Your task to perform on an android device: install app "Etsy: Buy & Sell Unique Items" Image 0: 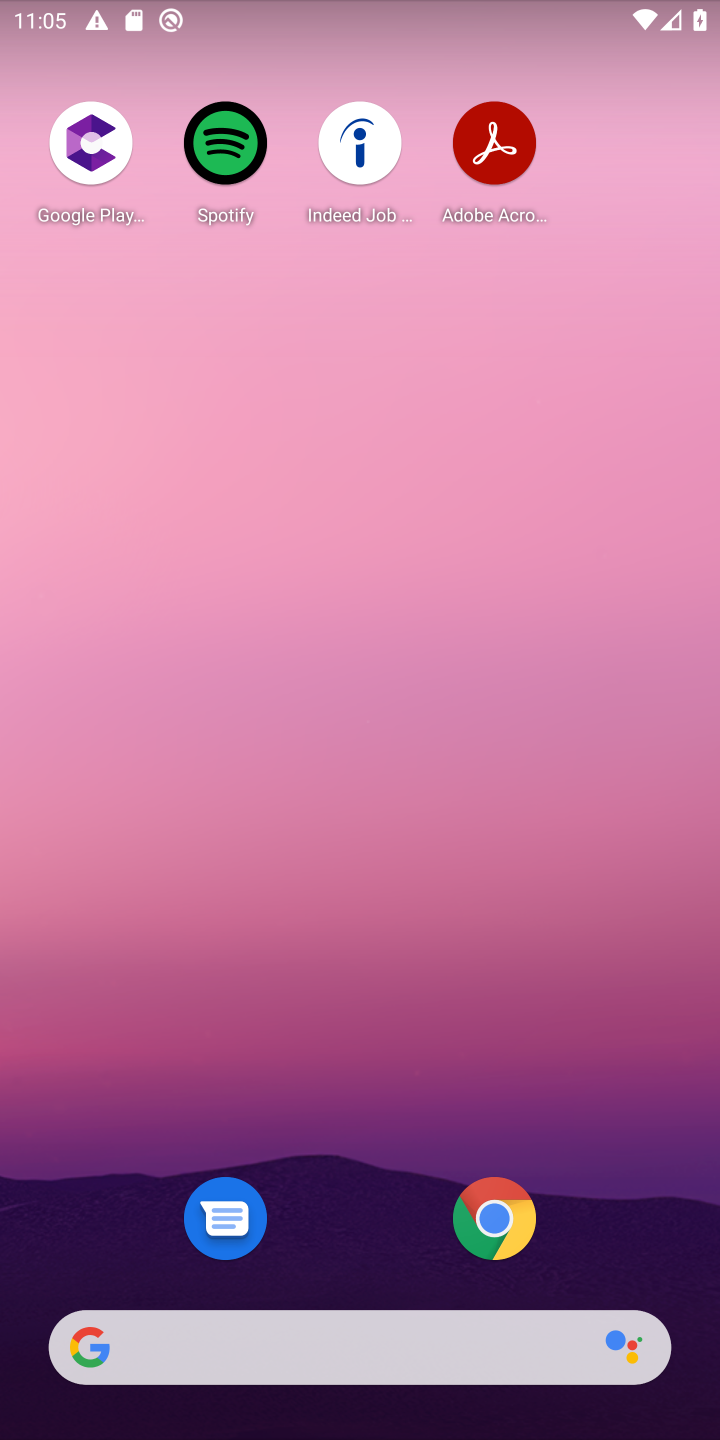
Step 0: drag from (383, 579) to (383, 451)
Your task to perform on an android device: install app "Etsy: Buy & Sell Unique Items" Image 1: 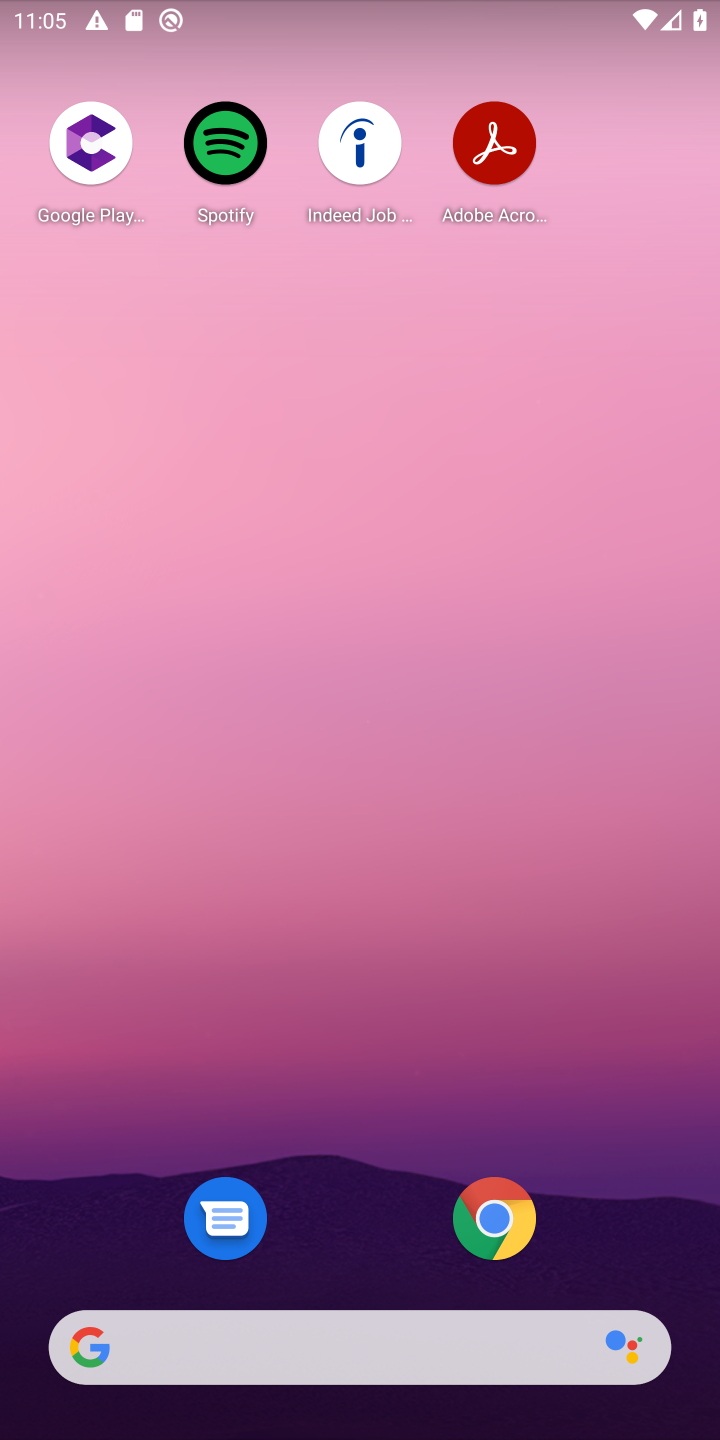
Step 1: drag from (343, 1285) to (323, 299)
Your task to perform on an android device: install app "Etsy: Buy & Sell Unique Items" Image 2: 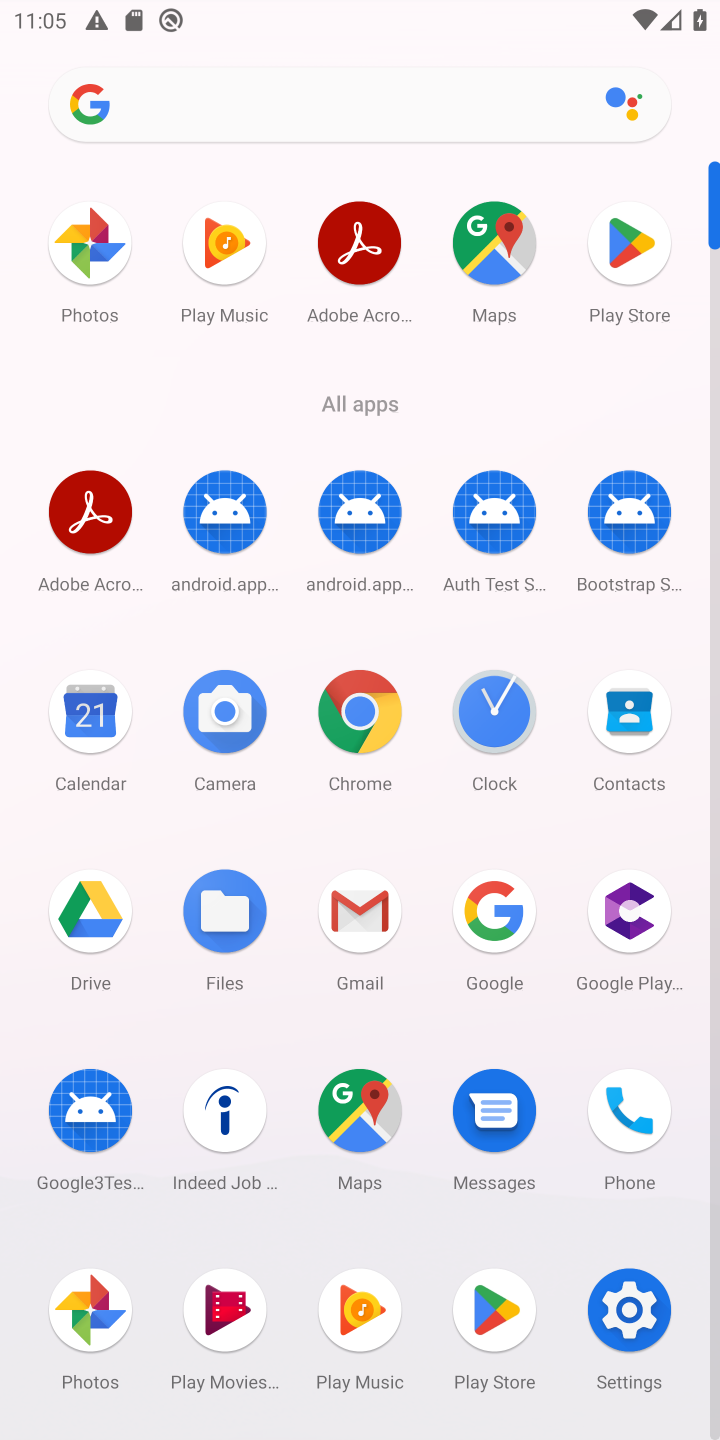
Step 2: click (610, 244)
Your task to perform on an android device: install app "Etsy: Buy & Sell Unique Items" Image 3: 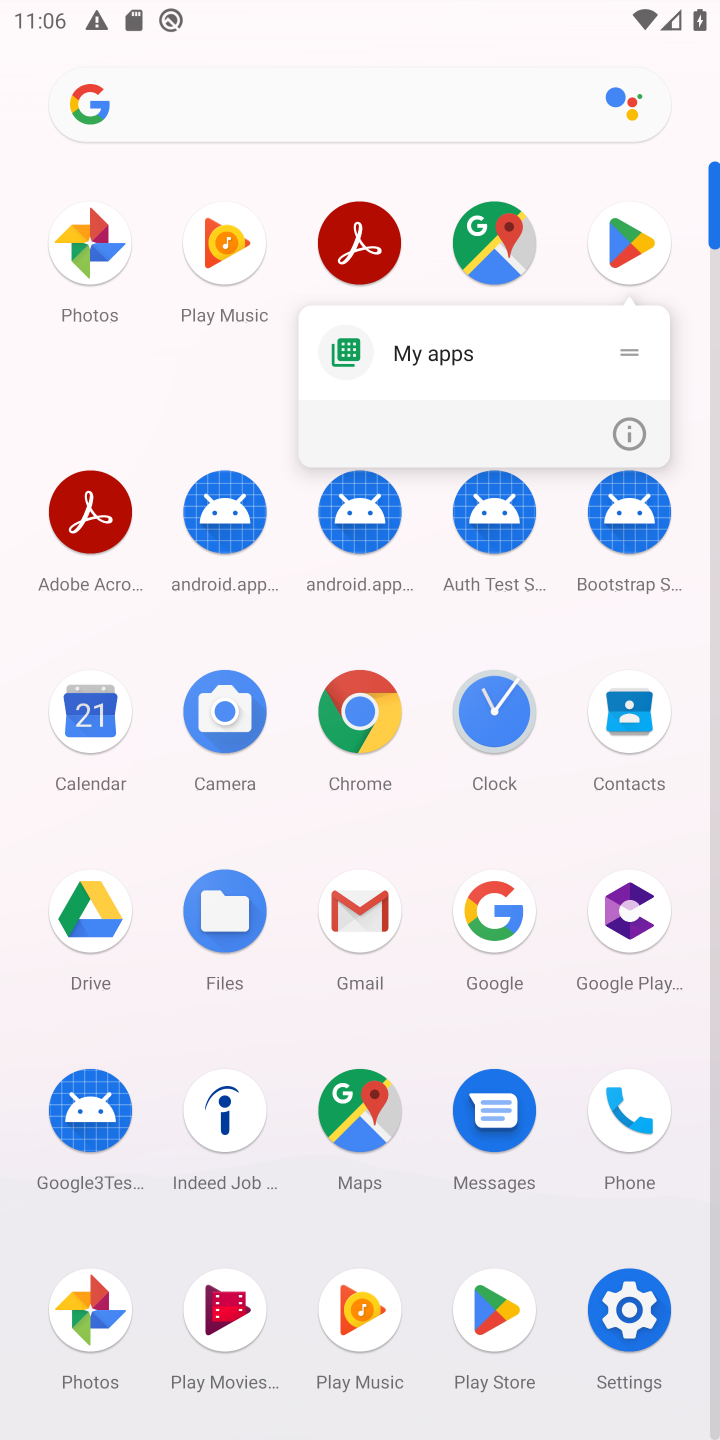
Step 3: click (604, 253)
Your task to perform on an android device: install app "Etsy: Buy & Sell Unique Items" Image 4: 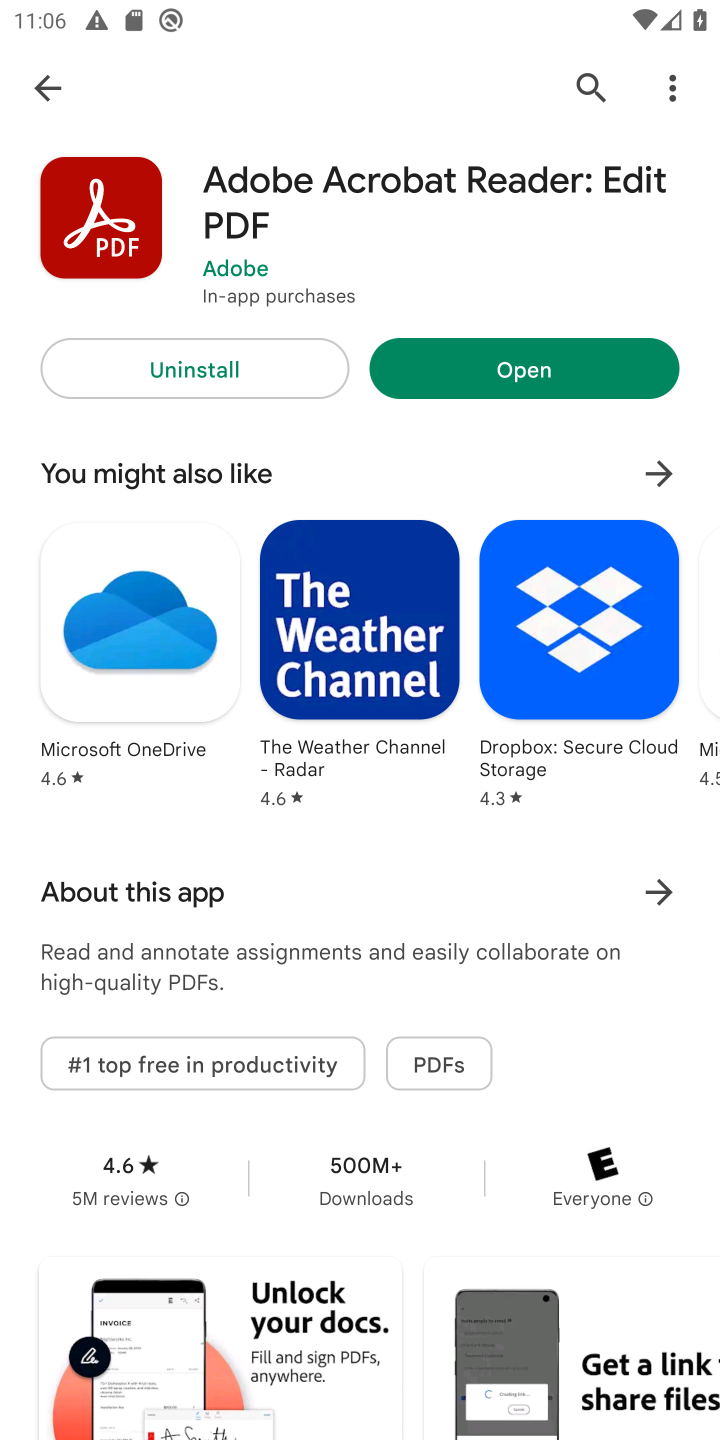
Step 4: click (580, 89)
Your task to perform on an android device: install app "Etsy: Buy & Sell Unique Items" Image 5: 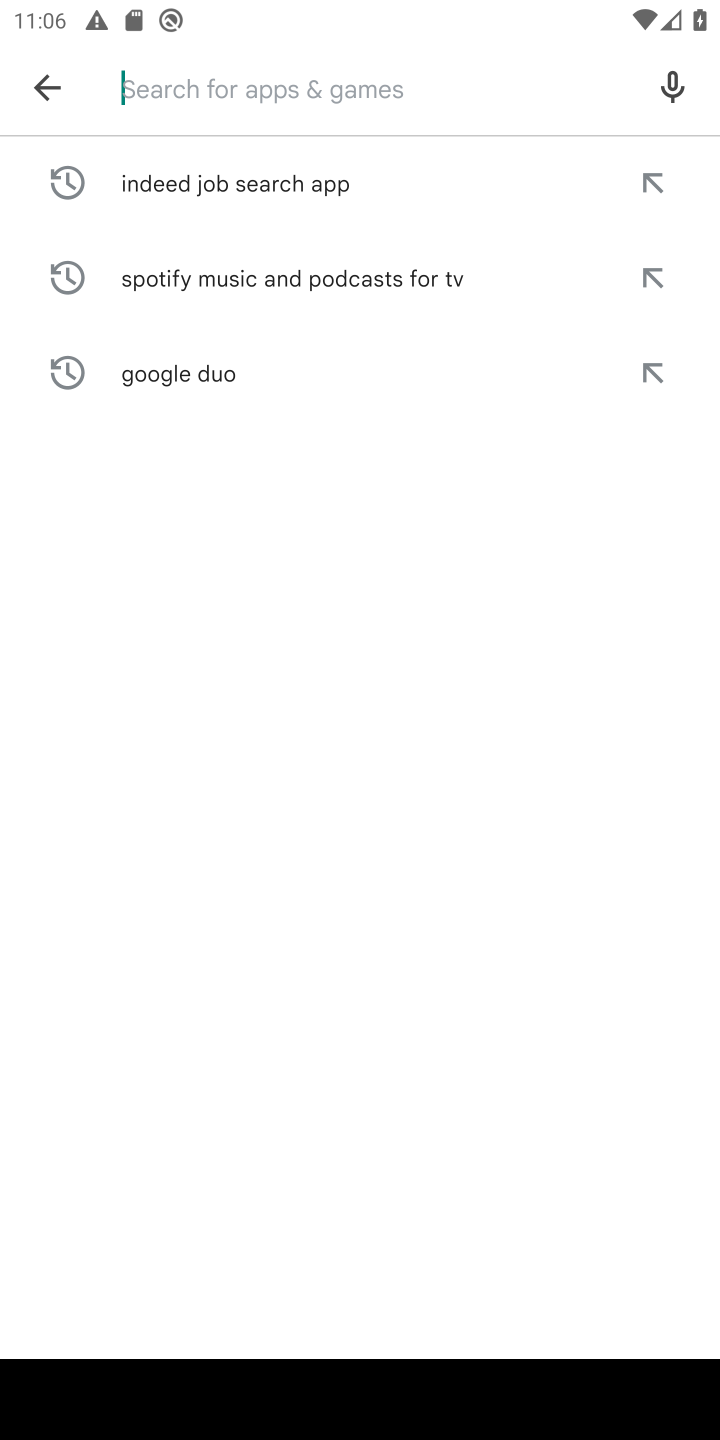
Step 5: type "Etsy: Buy & Sell Unique Items"
Your task to perform on an android device: install app "Etsy: Buy & Sell Unique Items" Image 6: 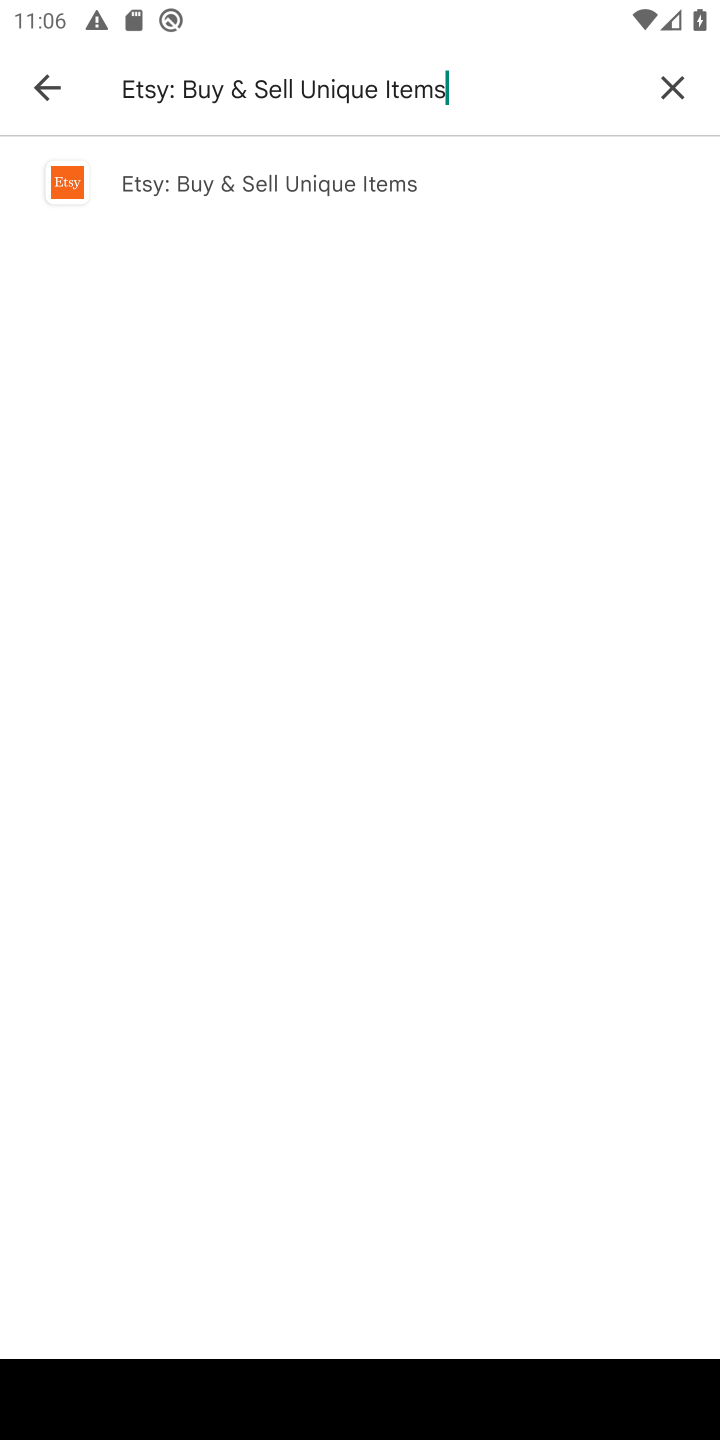
Step 6: click (260, 182)
Your task to perform on an android device: install app "Etsy: Buy & Sell Unique Items" Image 7: 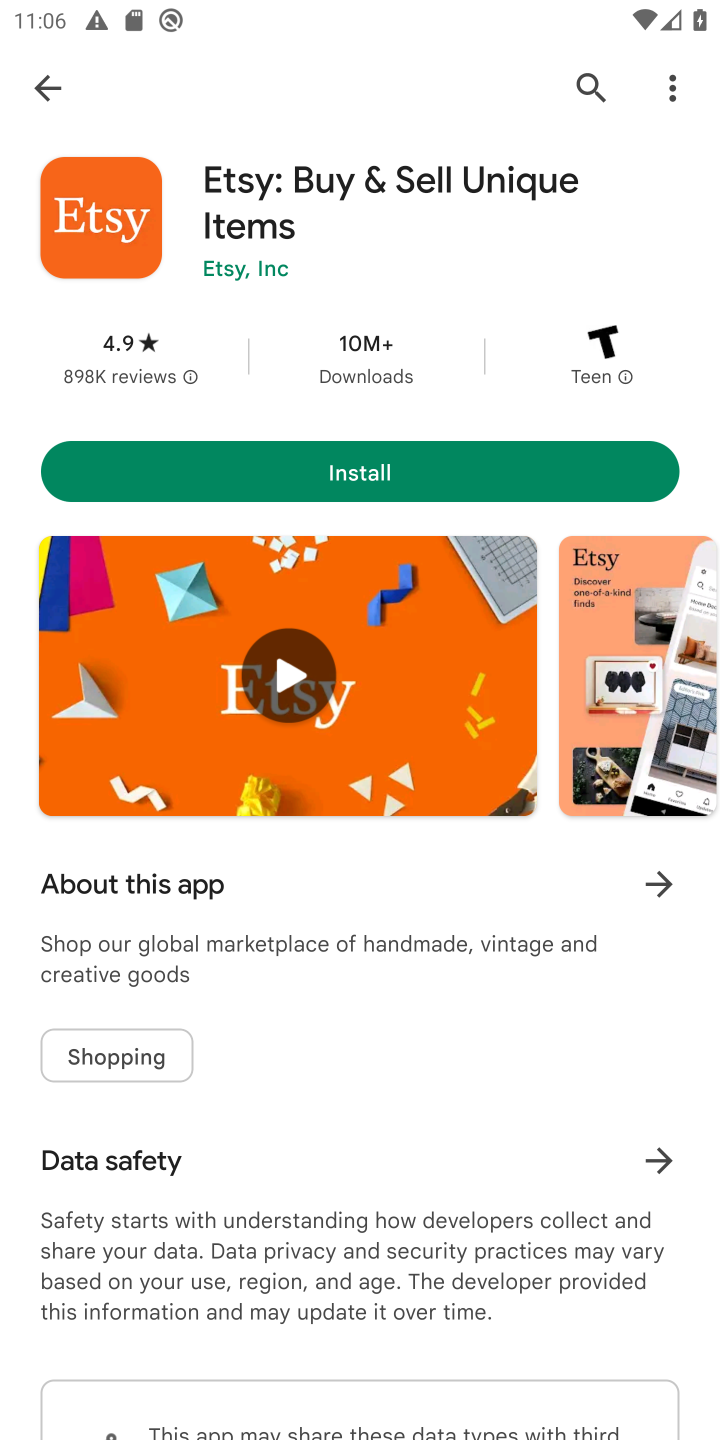
Step 7: click (382, 478)
Your task to perform on an android device: install app "Etsy: Buy & Sell Unique Items" Image 8: 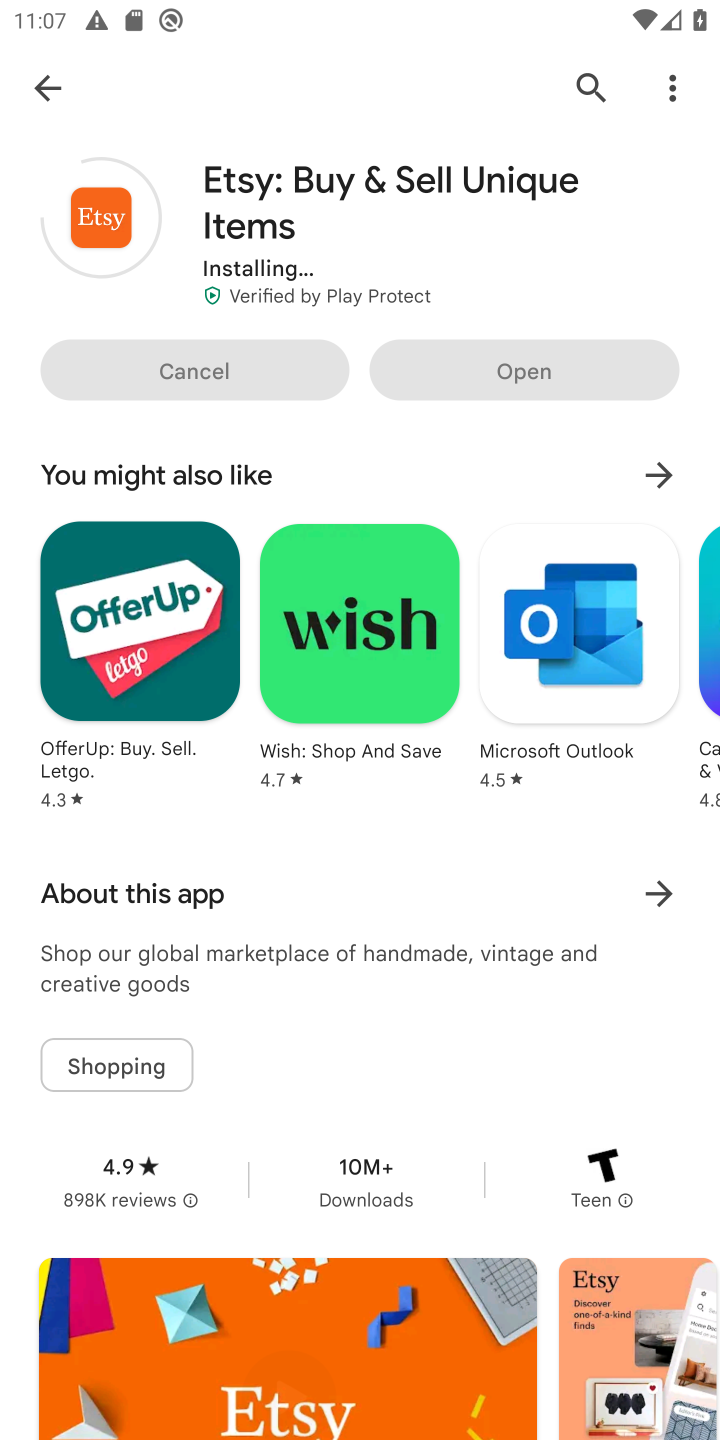
Step 8: task complete